Your task to perform on an android device: What's the weather going to be this weekend? Image 0: 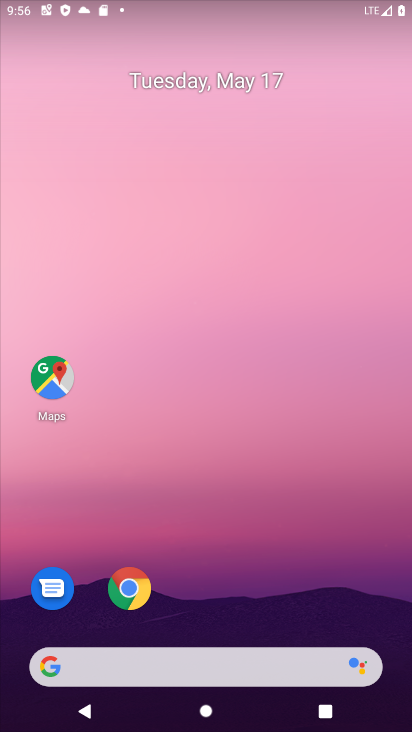
Step 0: click (216, 686)
Your task to perform on an android device: What's the weather going to be this weekend? Image 1: 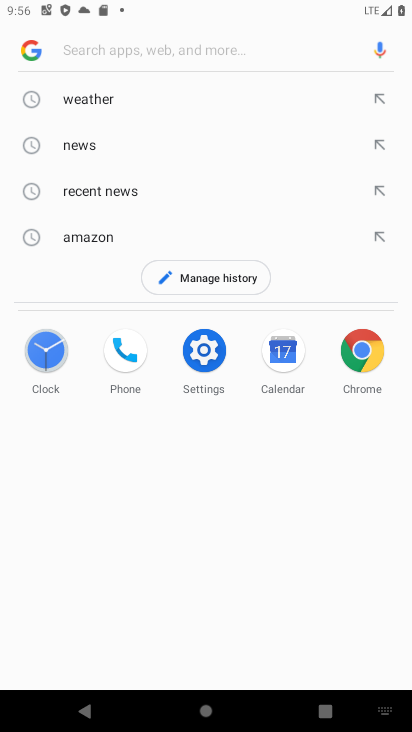
Step 1: click (77, 89)
Your task to perform on an android device: What's the weather going to be this weekend? Image 2: 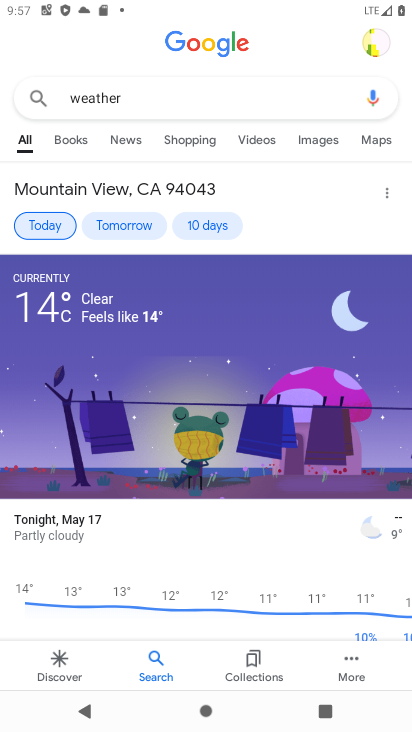
Step 2: click (198, 220)
Your task to perform on an android device: What's the weather going to be this weekend? Image 3: 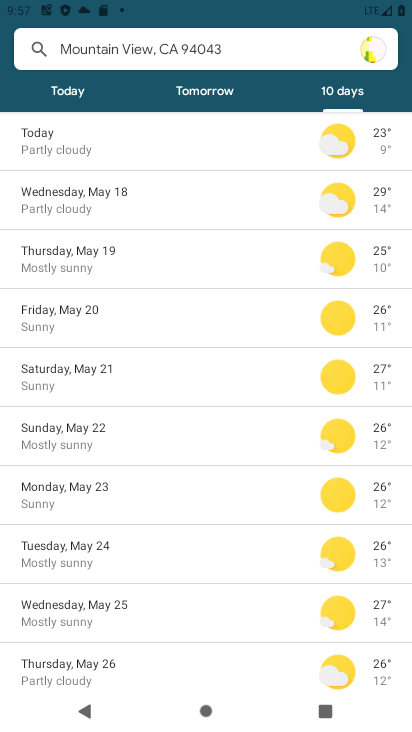
Step 3: task complete